Your task to perform on an android device: Go to wifi settings Image 0: 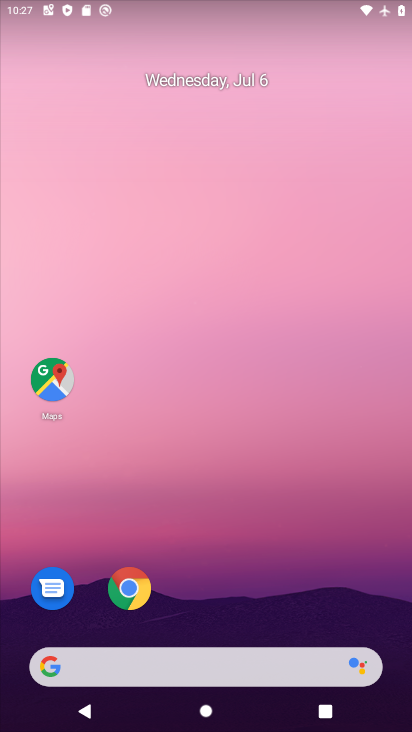
Step 0: drag from (308, 631) to (274, 242)
Your task to perform on an android device: Go to wifi settings Image 1: 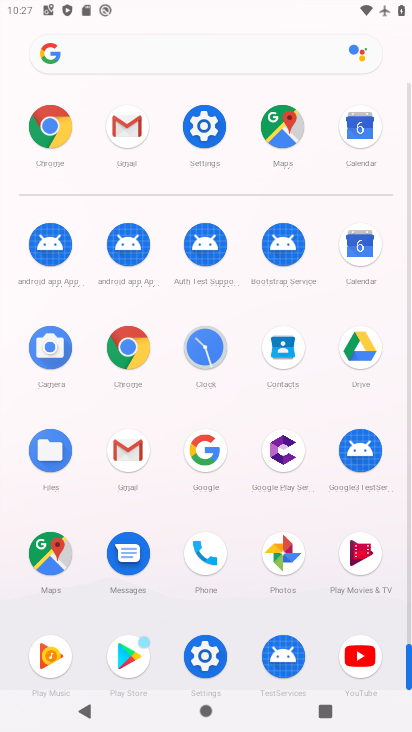
Step 1: click (186, 136)
Your task to perform on an android device: Go to wifi settings Image 2: 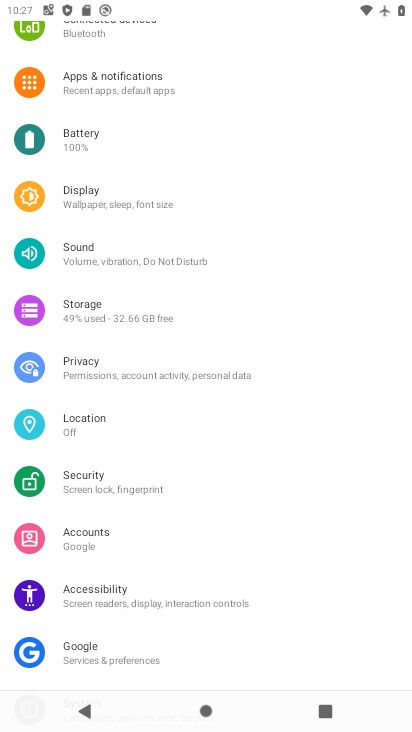
Step 2: drag from (182, 90) to (210, 564)
Your task to perform on an android device: Go to wifi settings Image 3: 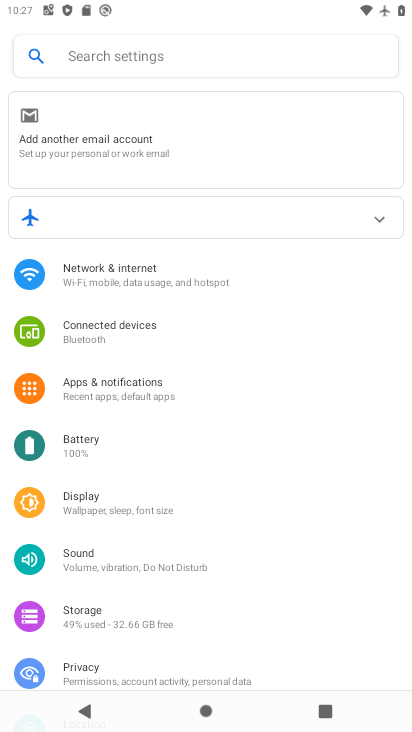
Step 3: click (123, 278)
Your task to perform on an android device: Go to wifi settings Image 4: 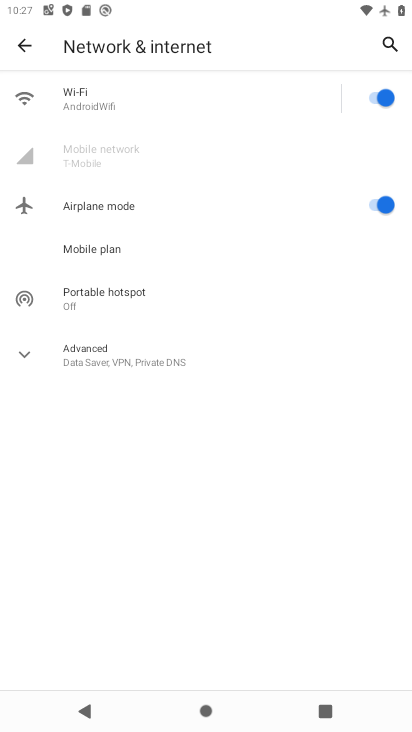
Step 4: click (151, 94)
Your task to perform on an android device: Go to wifi settings Image 5: 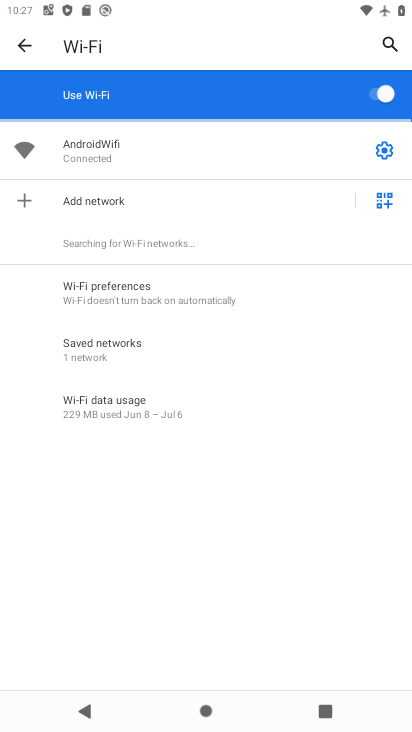
Step 5: task complete